Your task to perform on an android device: Check the weather Image 0: 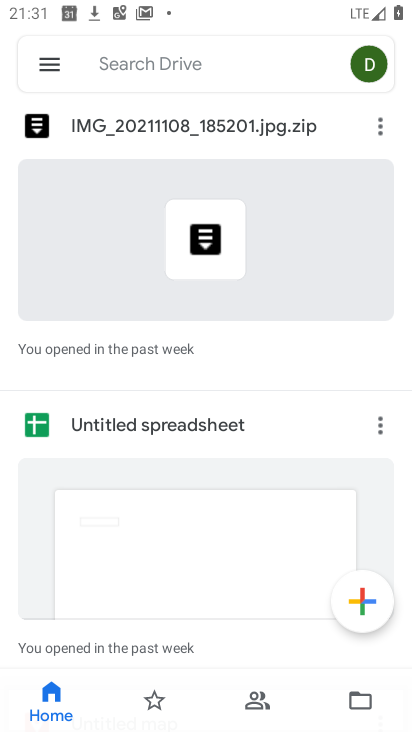
Step 0: press home button
Your task to perform on an android device: Check the weather Image 1: 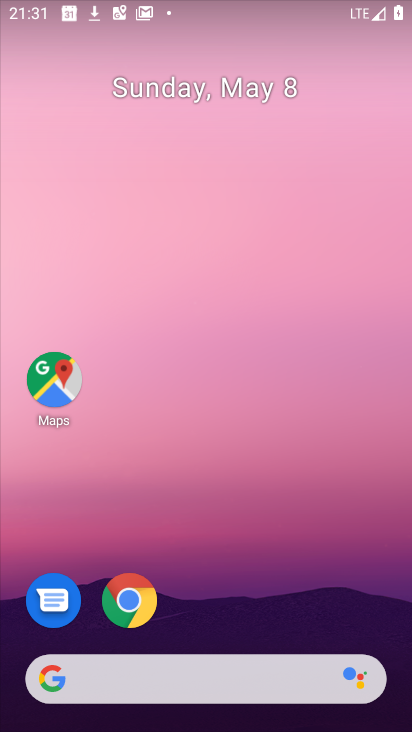
Step 1: drag from (337, 712) to (277, 188)
Your task to perform on an android device: Check the weather Image 2: 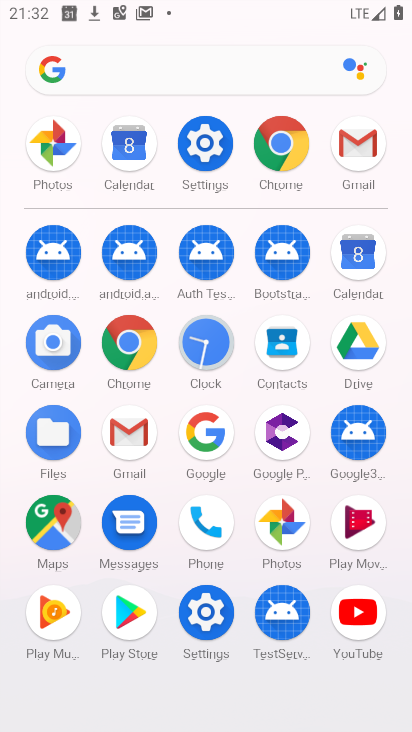
Step 2: click (131, 61)
Your task to perform on an android device: Check the weather Image 3: 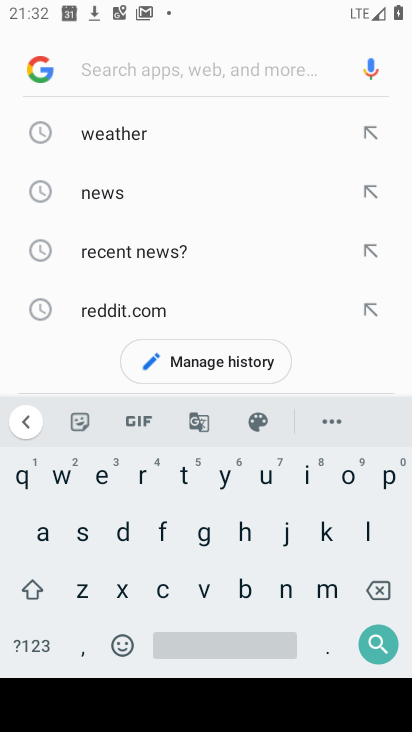
Step 3: click (125, 138)
Your task to perform on an android device: Check the weather Image 4: 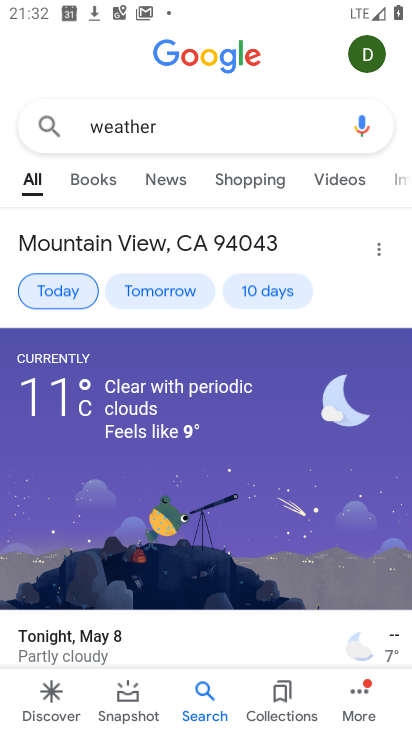
Step 4: task complete